Your task to perform on an android device: What's on my calendar tomorrow? Image 0: 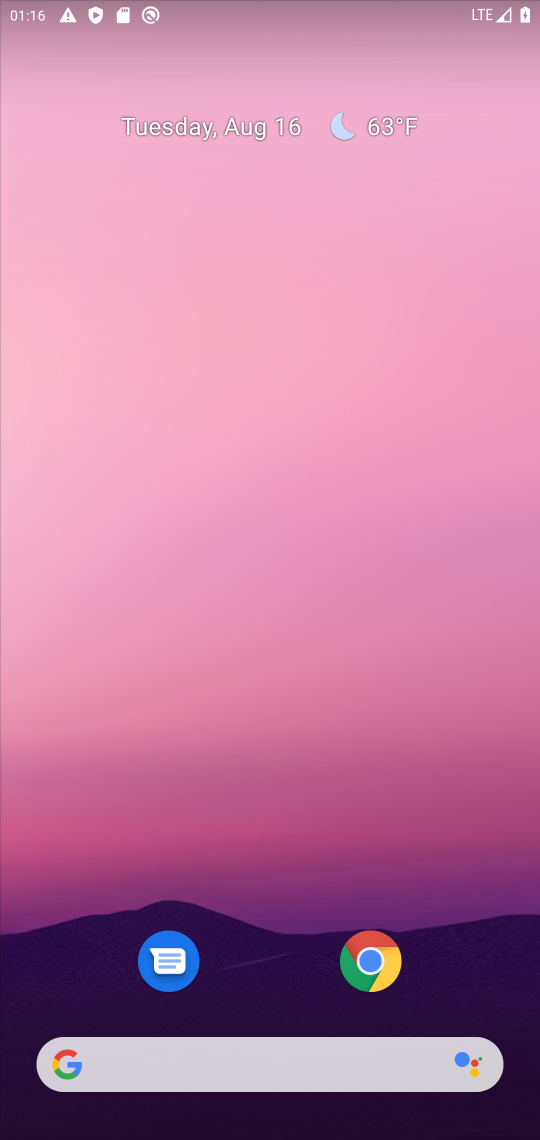
Step 0: drag from (293, 988) to (284, 53)
Your task to perform on an android device: What's on my calendar tomorrow? Image 1: 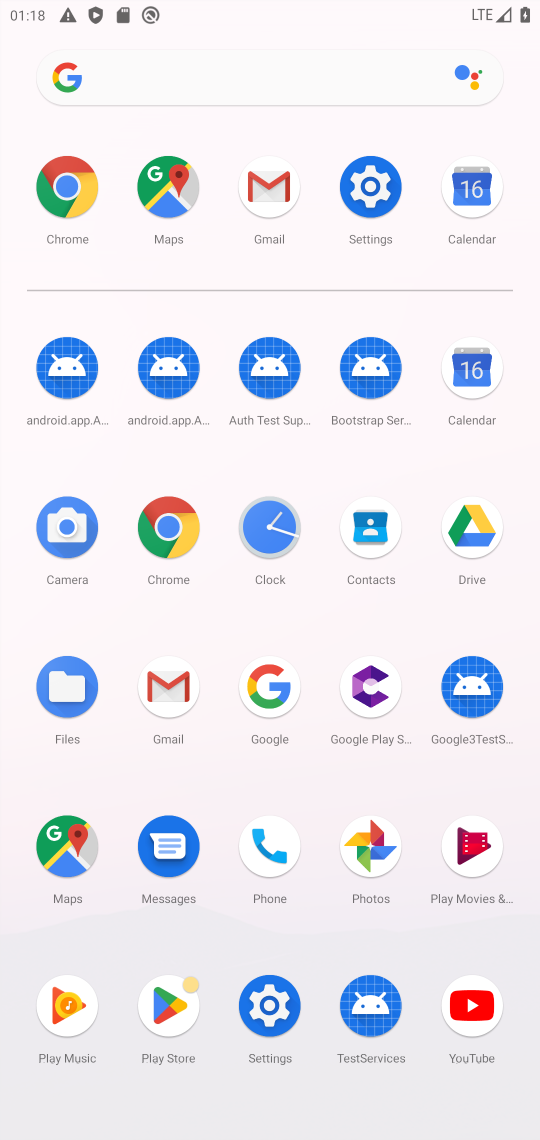
Step 1: click (491, 414)
Your task to perform on an android device: What's on my calendar tomorrow? Image 2: 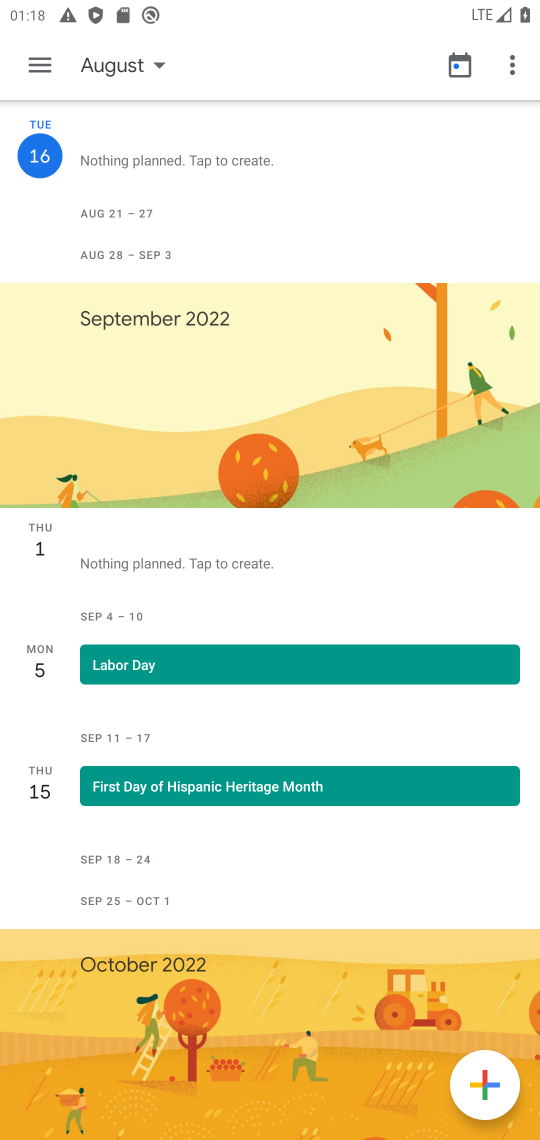
Step 2: click (140, 58)
Your task to perform on an android device: What's on my calendar tomorrow? Image 3: 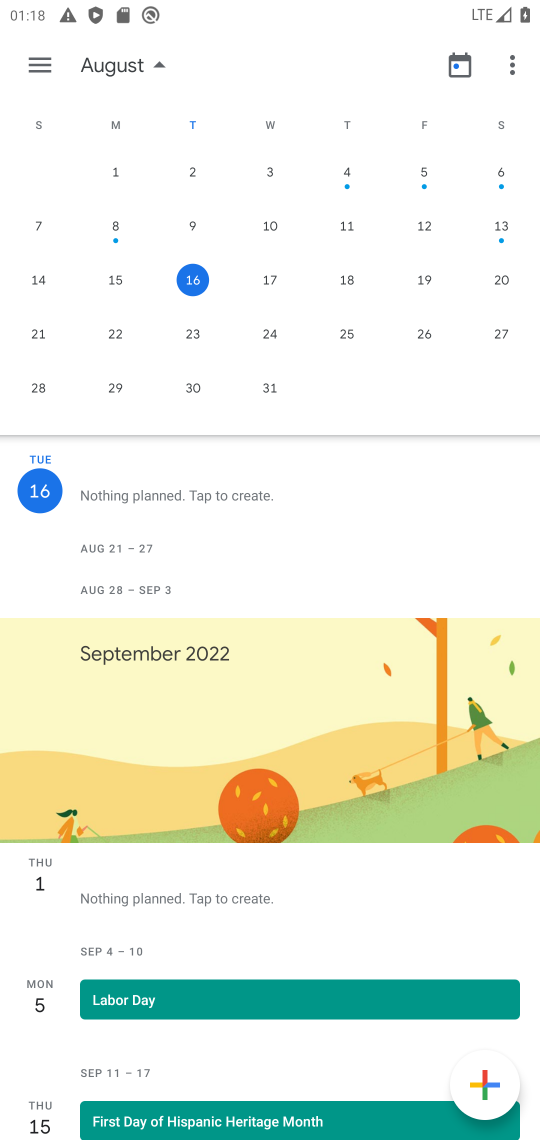
Step 3: click (261, 280)
Your task to perform on an android device: What's on my calendar tomorrow? Image 4: 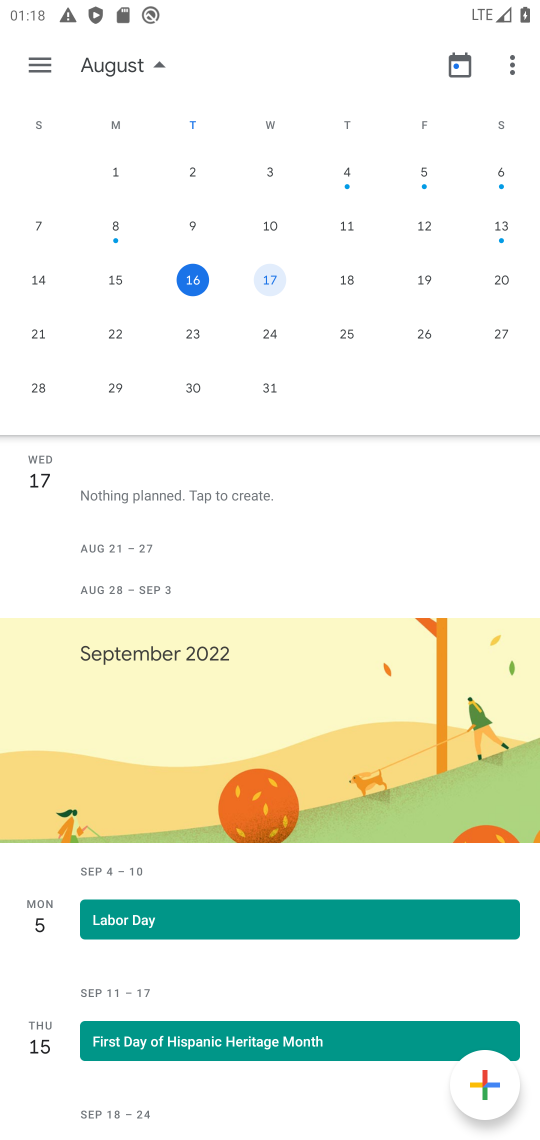
Step 4: task complete